Your task to perform on an android device: set the stopwatch Image 0: 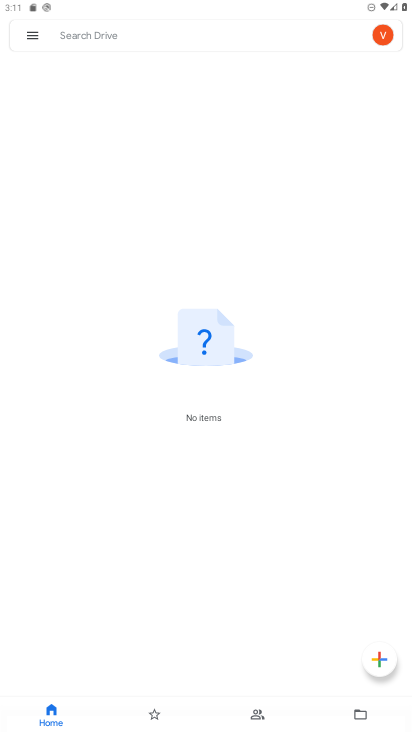
Step 0: press home button
Your task to perform on an android device: set the stopwatch Image 1: 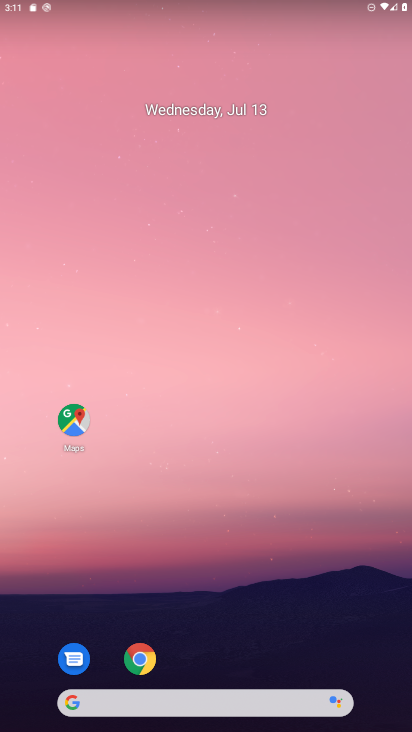
Step 1: drag from (389, 680) to (290, 96)
Your task to perform on an android device: set the stopwatch Image 2: 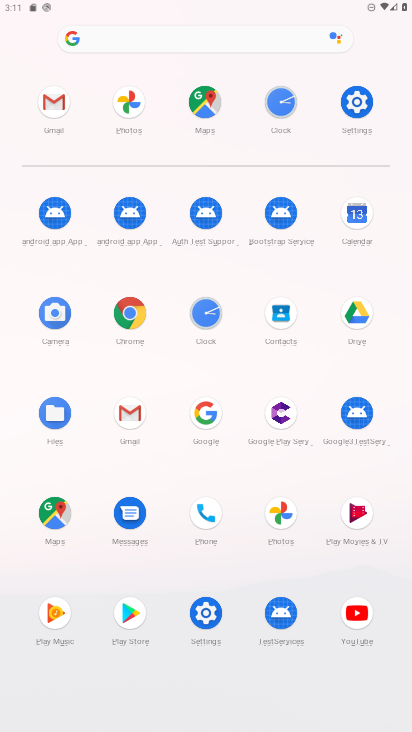
Step 2: click (203, 312)
Your task to perform on an android device: set the stopwatch Image 3: 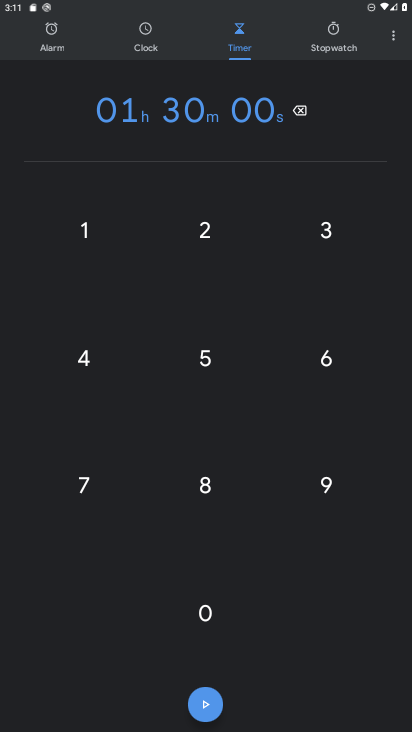
Step 3: click (330, 39)
Your task to perform on an android device: set the stopwatch Image 4: 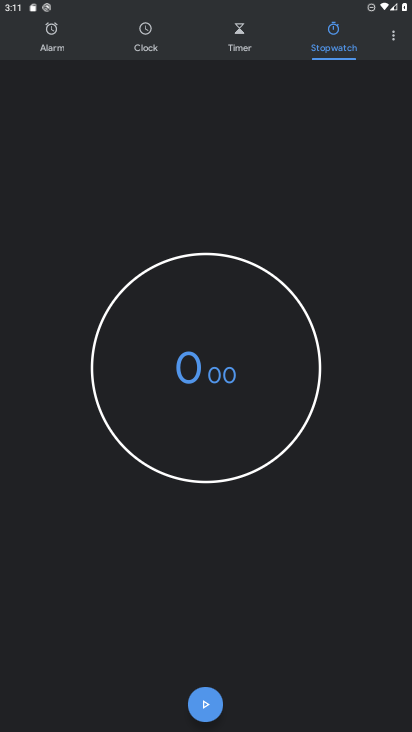
Step 4: task complete